Your task to perform on an android device: Open Google Chrome and open the bookmarks view Image 0: 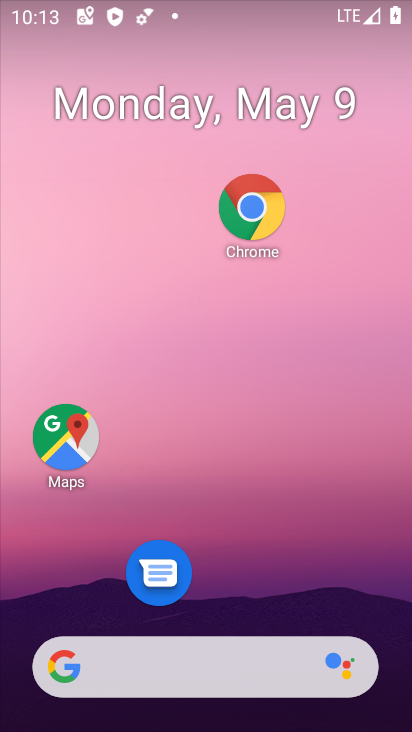
Step 0: drag from (242, 577) to (152, 167)
Your task to perform on an android device: Open Google Chrome and open the bookmarks view Image 1: 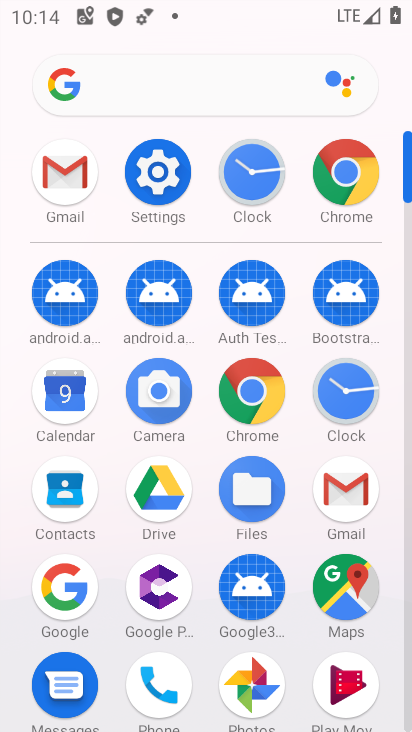
Step 1: click (339, 216)
Your task to perform on an android device: Open Google Chrome and open the bookmarks view Image 2: 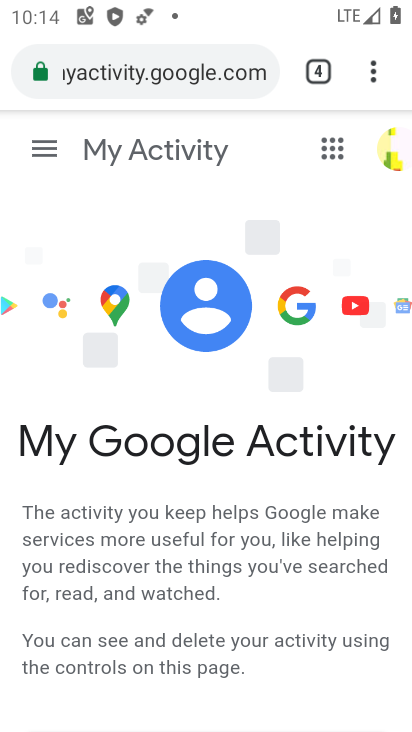
Step 2: click (368, 77)
Your task to perform on an android device: Open Google Chrome and open the bookmarks view Image 3: 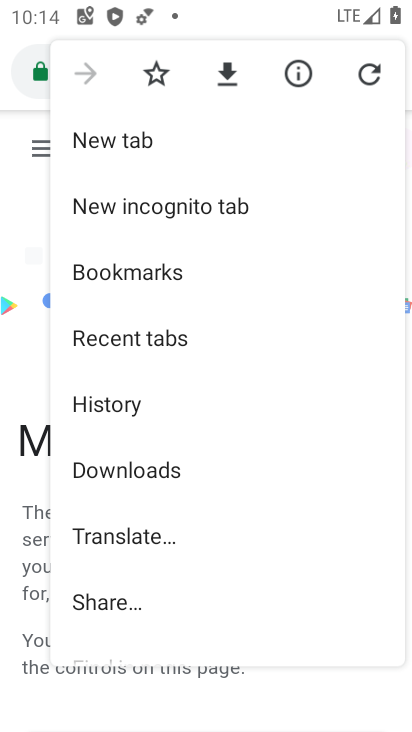
Step 3: click (195, 273)
Your task to perform on an android device: Open Google Chrome and open the bookmarks view Image 4: 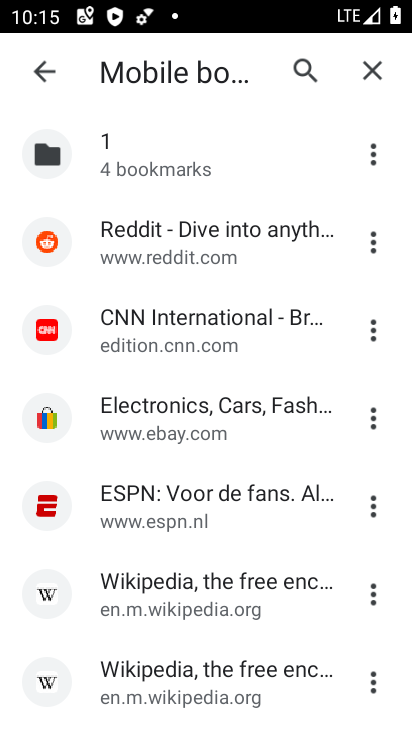
Step 4: task complete